Your task to perform on an android device: turn off sleep mode Image 0: 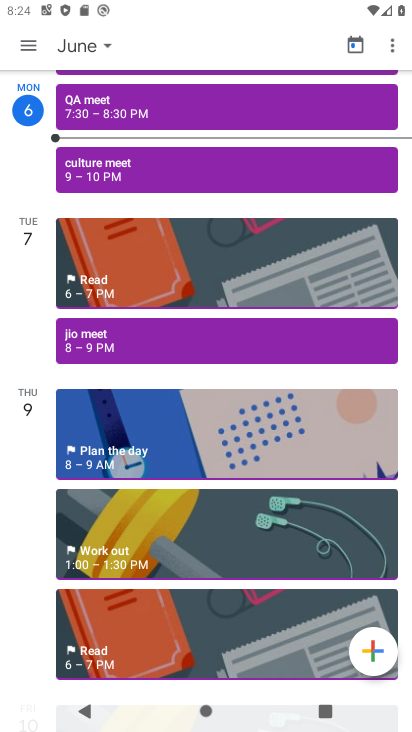
Step 0: press home button
Your task to perform on an android device: turn off sleep mode Image 1: 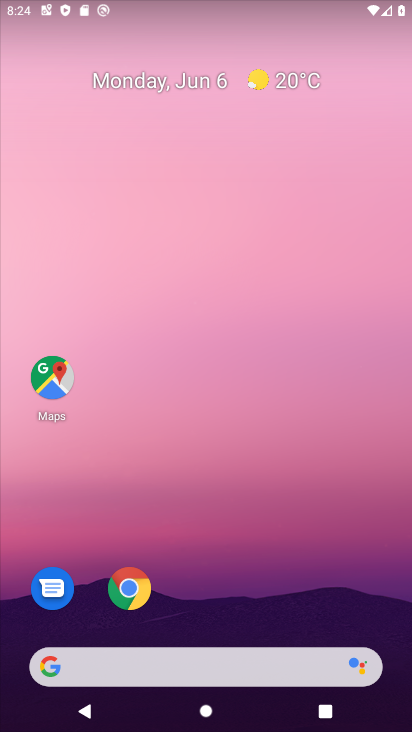
Step 1: drag from (203, 632) to (338, 98)
Your task to perform on an android device: turn off sleep mode Image 2: 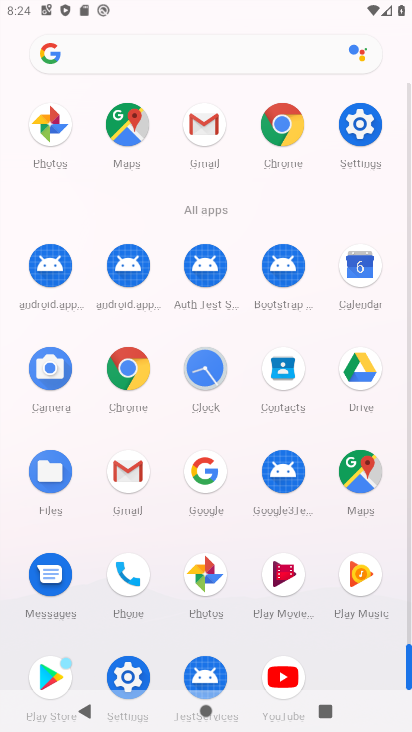
Step 2: drag from (246, 585) to (298, 291)
Your task to perform on an android device: turn off sleep mode Image 3: 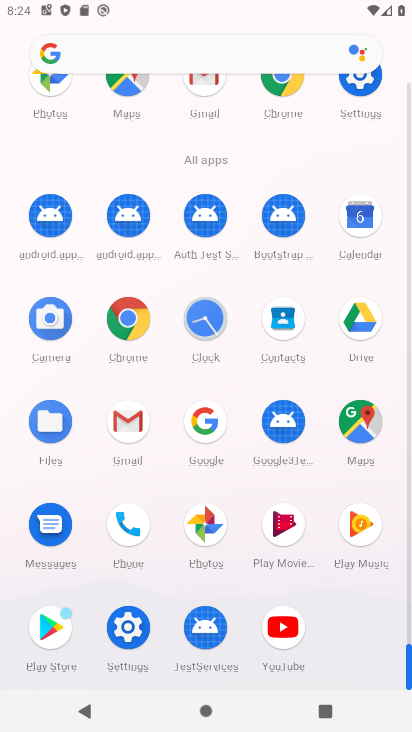
Step 3: click (129, 638)
Your task to perform on an android device: turn off sleep mode Image 4: 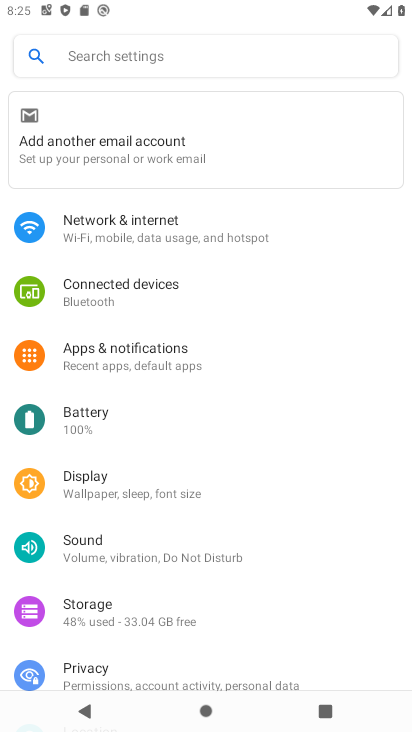
Step 4: click (129, 486)
Your task to perform on an android device: turn off sleep mode Image 5: 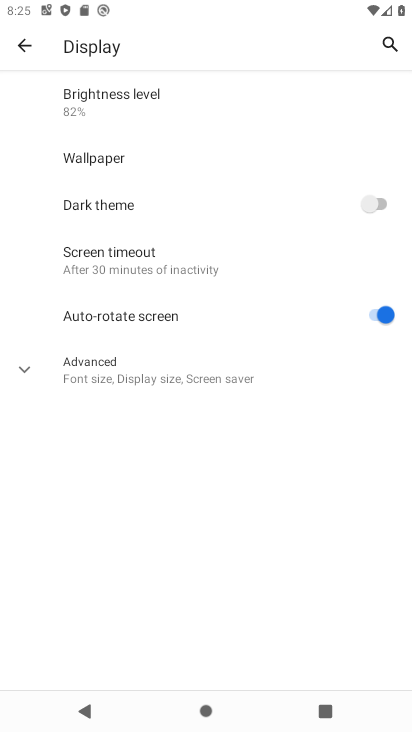
Step 5: click (178, 376)
Your task to perform on an android device: turn off sleep mode Image 6: 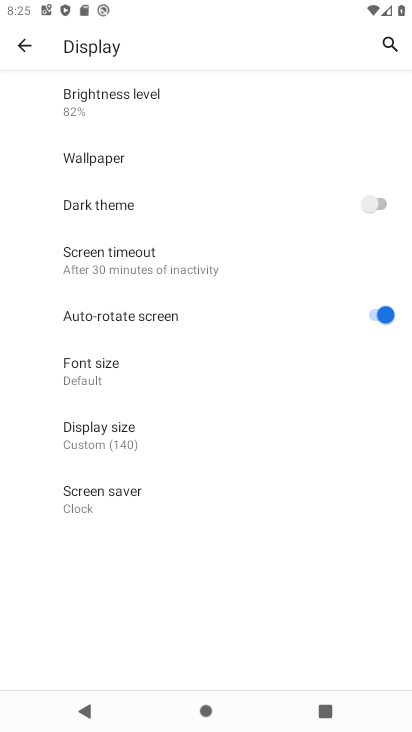
Step 6: task complete